Your task to perform on an android device: turn on sleep mode Image 0: 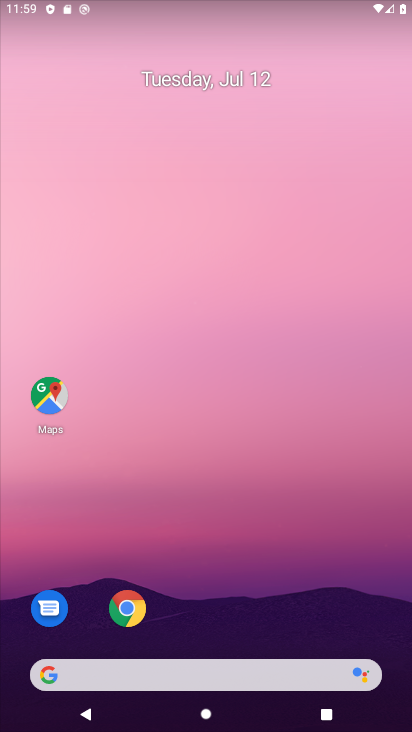
Step 0: drag from (204, 615) to (282, 32)
Your task to perform on an android device: turn on sleep mode Image 1: 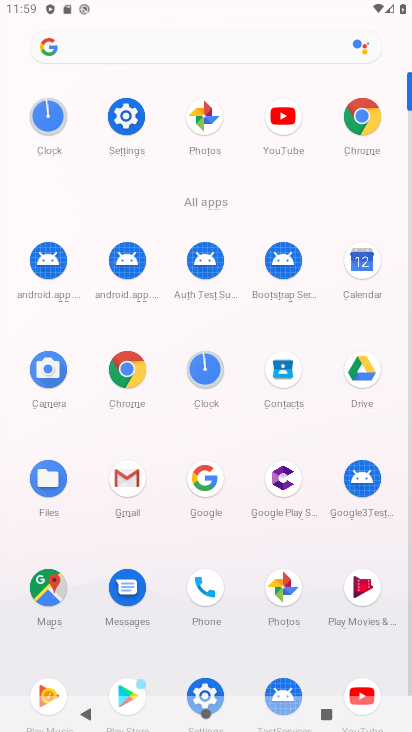
Step 1: click (138, 116)
Your task to perform on an android device: turn on sleep mode Image 2: 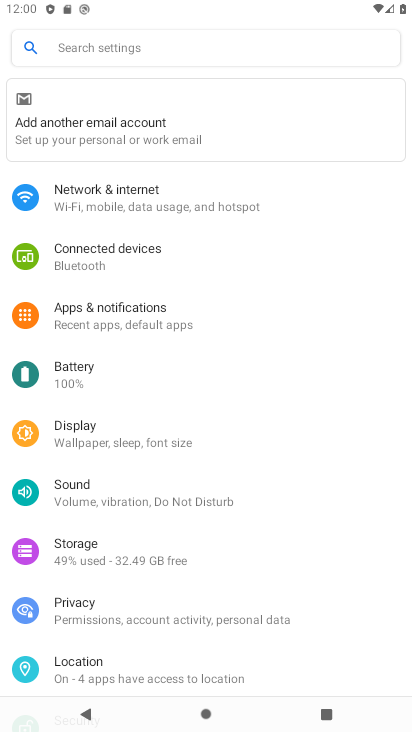
Step 2: click (155, 47)
Your task to perform on an android device: turn on sleep mode Image 3: 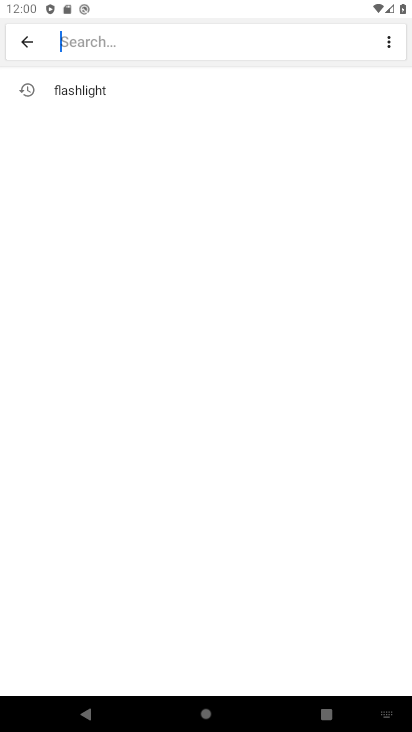
Step 3: type "sleep mode"
Your task to perform on an android device: turn on sleep mode Image 4: 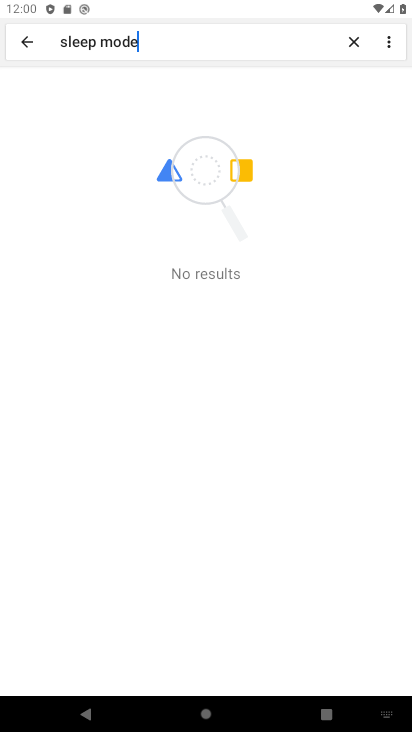
Step 4: task complete